Your task to perform on an android device: Open Wikipedia Image 0: 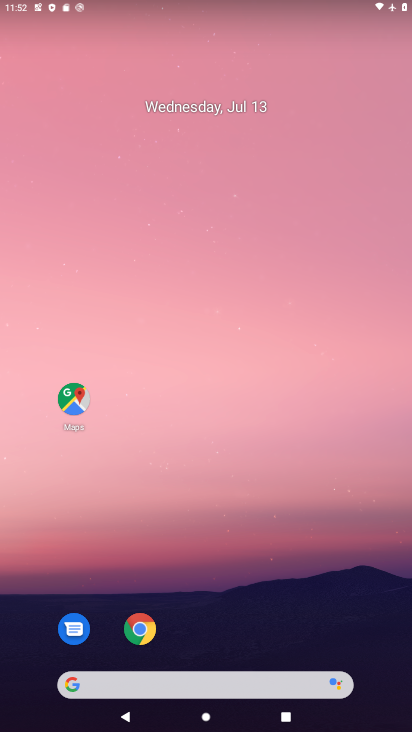
Step 0: drag from (355, 712) to (236, 170)
Your task to perform on an android device: Open Wikipedia Image 1: 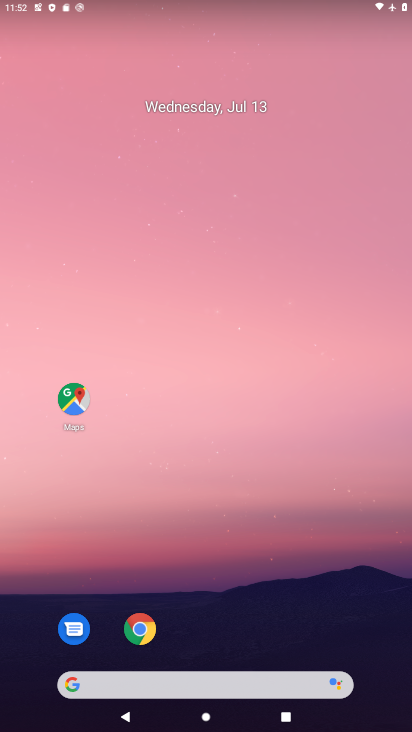
Step 1: drag from (264, 682) to (204, 303)
Your task to perform on an android device: Open Wikipedia Image 2: 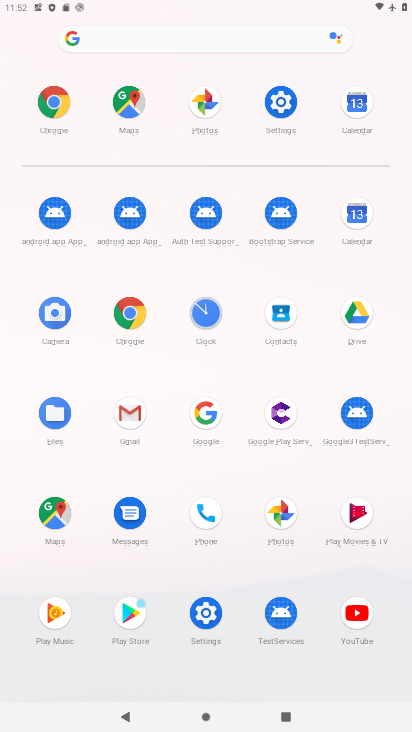
Step 2: click (266, 104)
Your task to perform on an android device: Open Wikipedia Image 3: 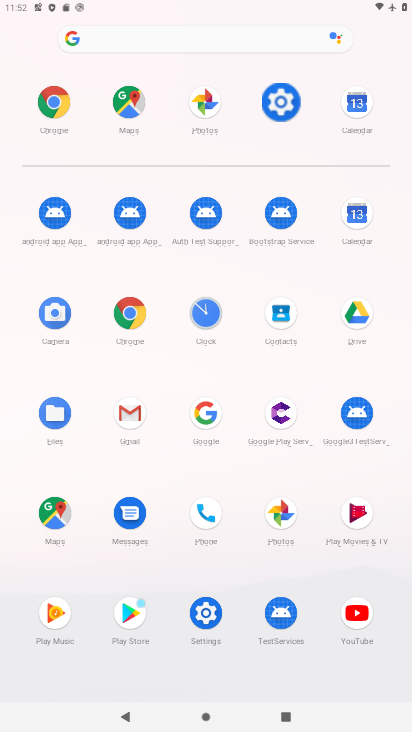
Step 3: click (281, 102)
Your task to perform on an android device: Open Wikipedia Image 4: 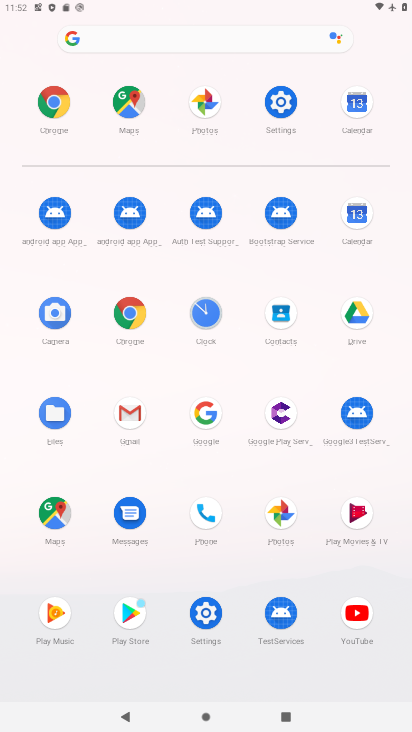
Step 4: click (47, 101)
Your task to perform on an android device: Open Wikipedia Image 5: 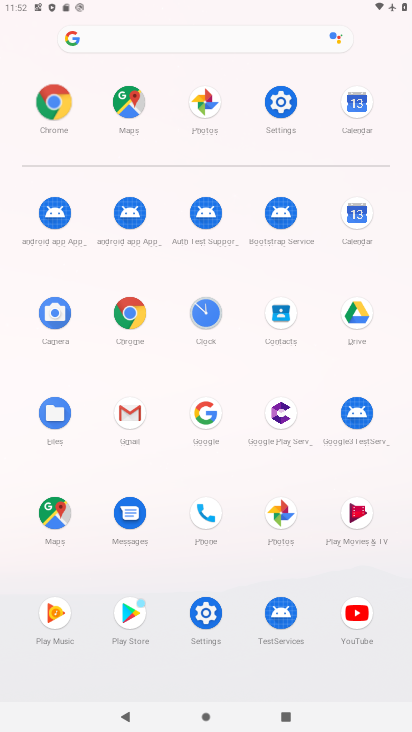
Step 5: click (47, 101)
Your task to perform on an android device: Open Wikipedia Image 6: 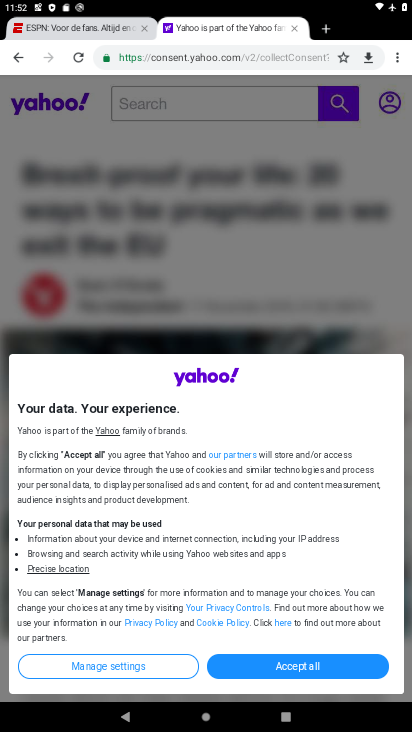
Step 6: click (11, 58)
Your task to perform on an android device: Open Wikipedia Image 7: 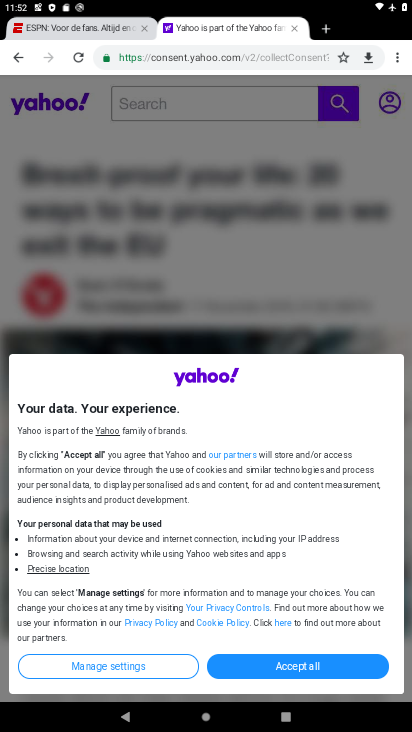
Step 7: click (11, 58)
Your task to perform on an android device: Open Wikipedia Image 8: 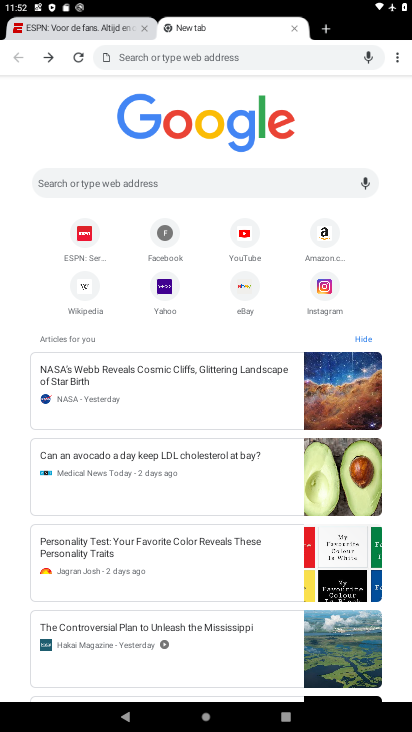
Step 8: click (83, 278)
Your task to perform on an android device: Open Wikipedia Image 9: 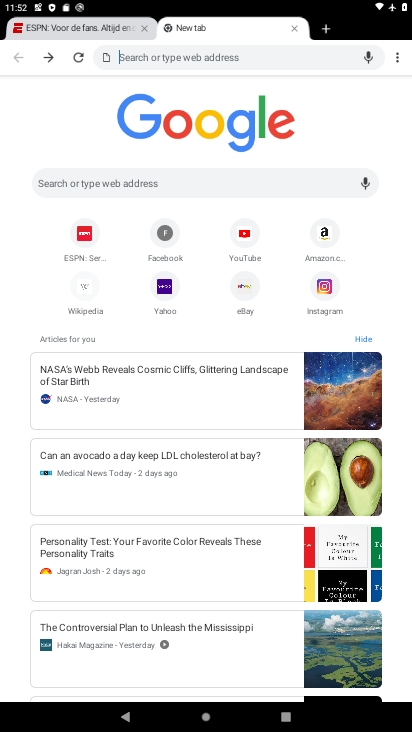
Step 9: click (82, 278)
Your task to perform on an android device: Open Wikipedia Image 10: 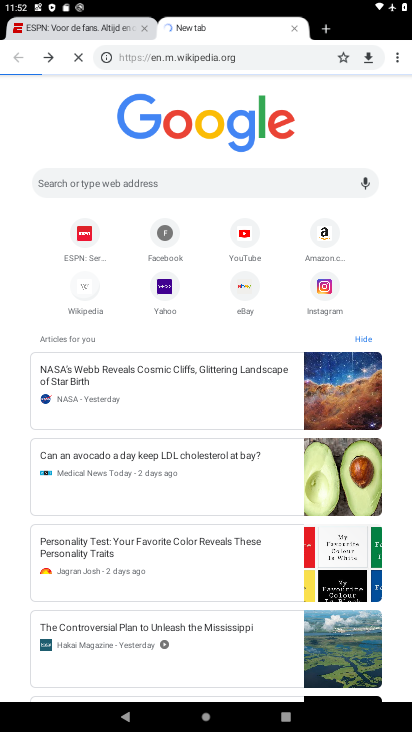
Step 10: click (86, 286)
Your task to perform on an android device: Open Wikipedia Image 11: 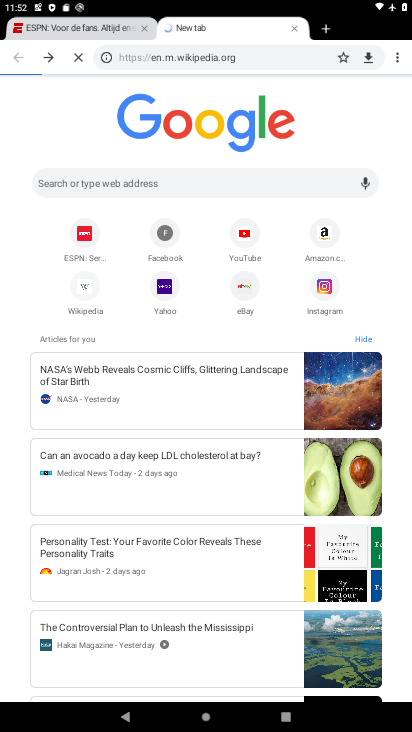
Step 11: click (86, 286)
Your task to perform on an android device: Open Wikipedia Image 12: 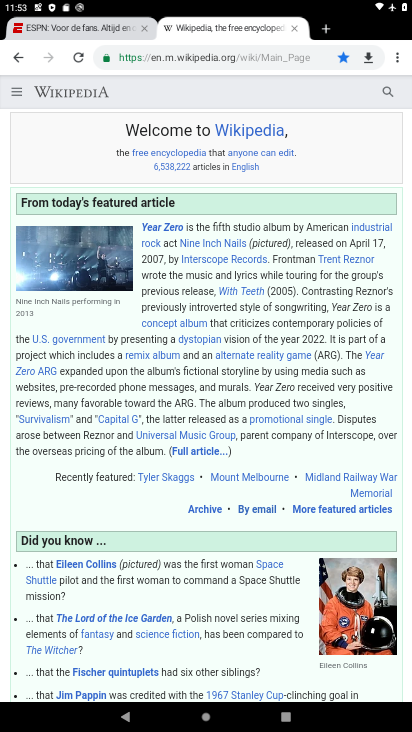
Step 12: task complete